Your task to perform on an android device: Go to CNN.com Image 0: 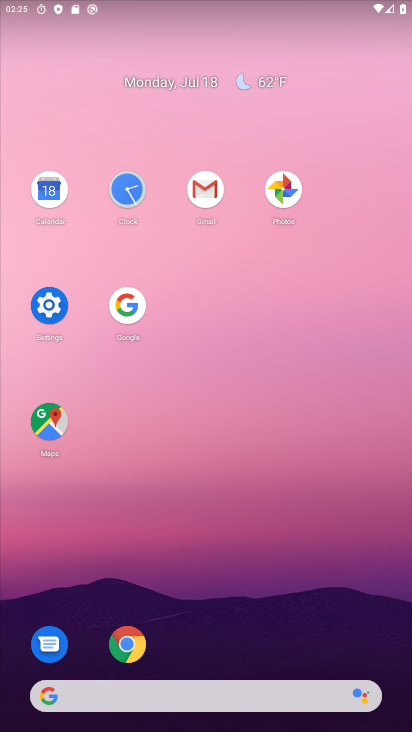
Step 0: click (123, 651)
Your task to perform on an android device: Go to CNN.com Image 1: 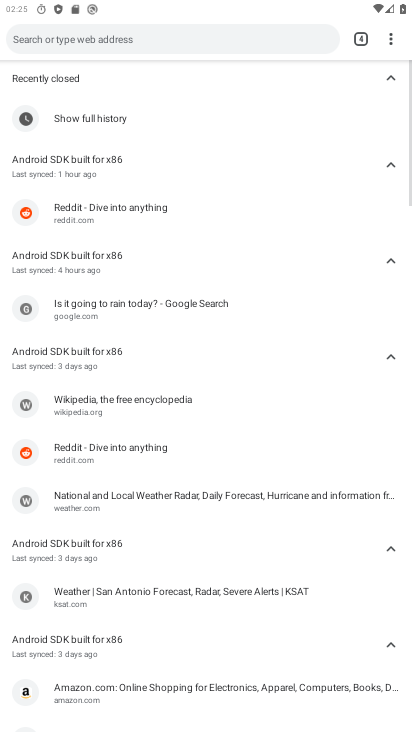
Step 1: click (362, 35)
Your task to perform on an android device: Go to CNN.com Image 2: 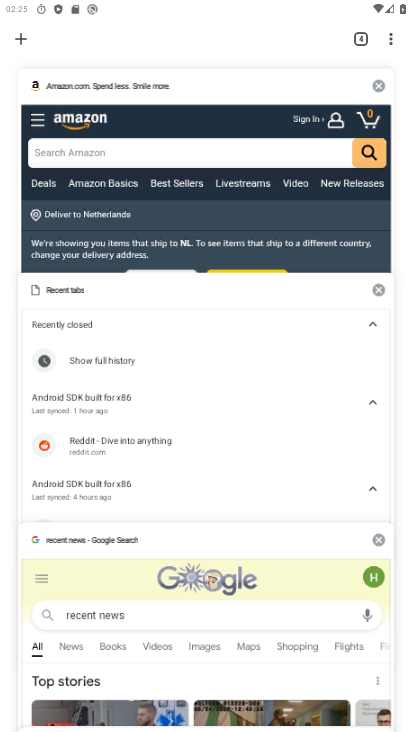
Step 2: click (12, 23)
Your task to perform on an android device: Go to CNN.com Image 3: 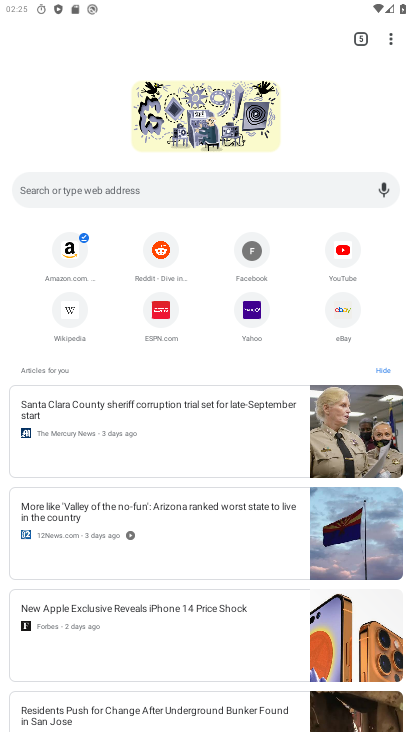
Step 3: click (261, 180)
Your task to perform on an android device: Go to CNN.com Image 4: 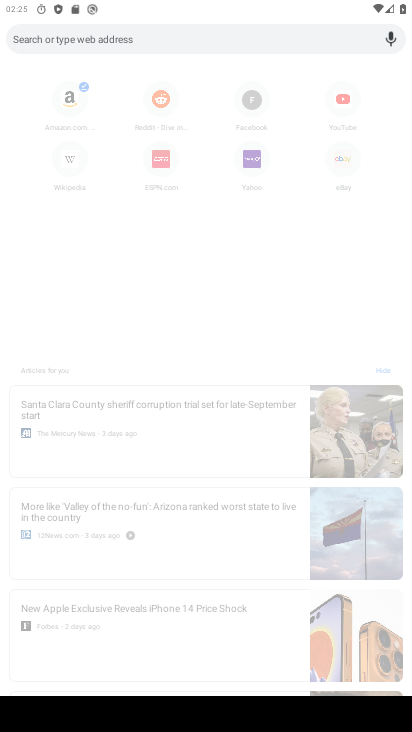
Step 4: type "cnn"
Your task to perform on an android device: Go to CNN.com Image 5: 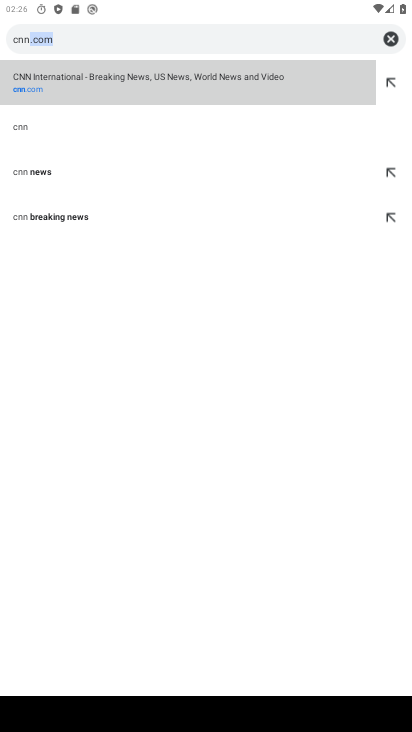
Step 5: click (222, 86)
Your task to perform on an android device: Go to CNN.com Image 6: 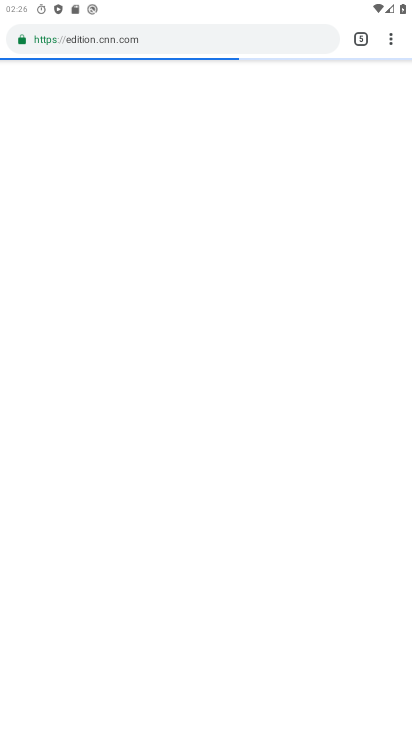
Step 6: task complete